Your task to perform on an android device: turn off picture-in-picture Image 0: 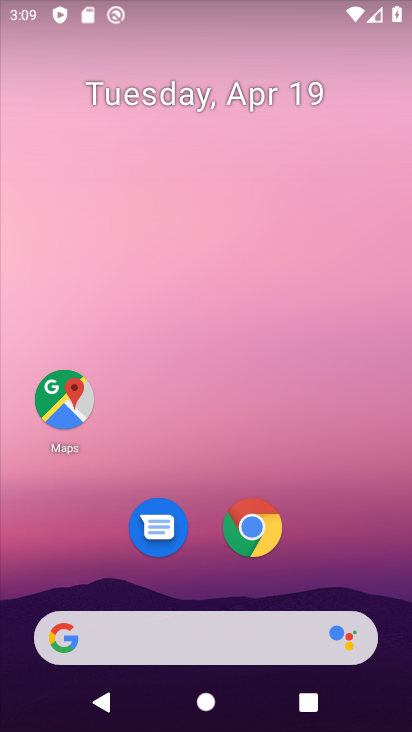
Step 0: click (268, 534)
Your task to perform on an android device: turn off picture-in-picture Image 1: 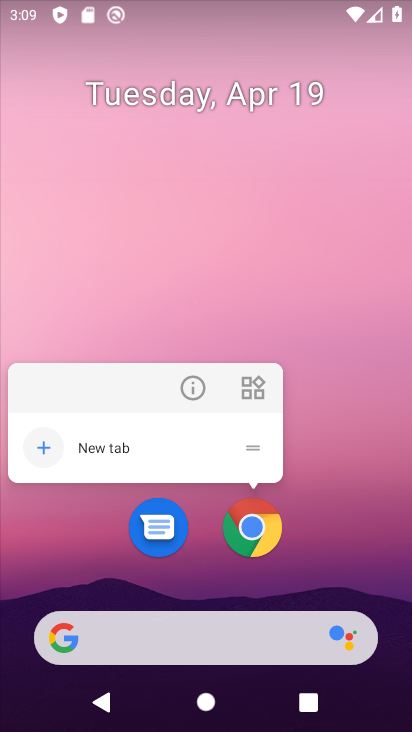
Step 1: click (194, 387)
Your task to perform on an android device: turn off picture-in-picture Image 2: 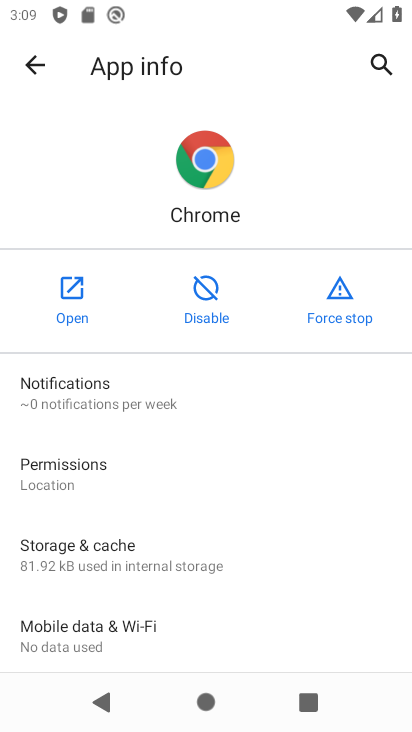
Step 2: drag from (228, 605) to (221, 114)
Your task to perform on an android device: turn off picture-in-picture Image 3: 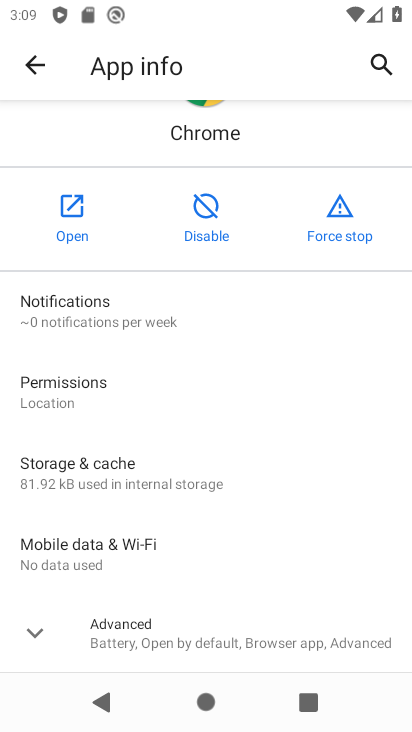
Step 3: click (165, 627)
Your task to perform on an android device: turn off picture-in-picture Image 4: 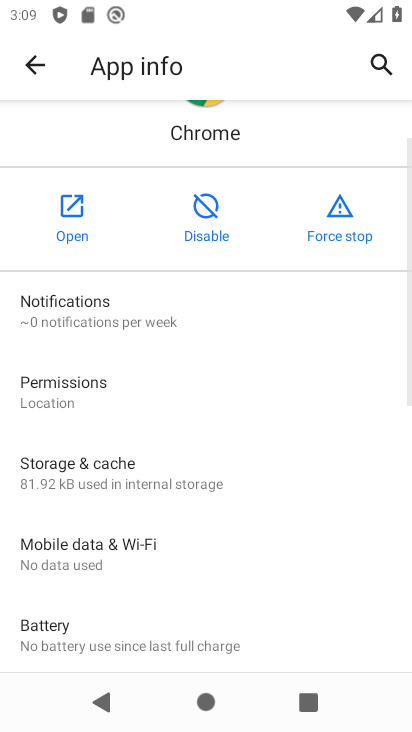
Step 4: drag from (256, 609) to (339, 247)
Your task to perform on an android device: turn off picture-in-picture Image 5: 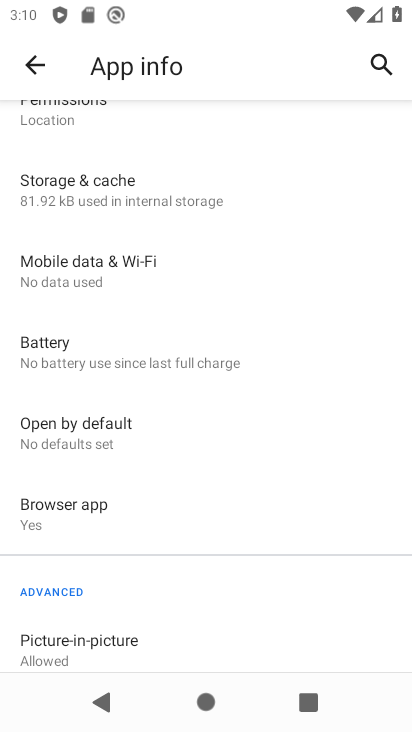
Step 5: drag from (229, 598) to (263, 156)
Your task to perform on an android device: turn off picture-in-picture Image 6: 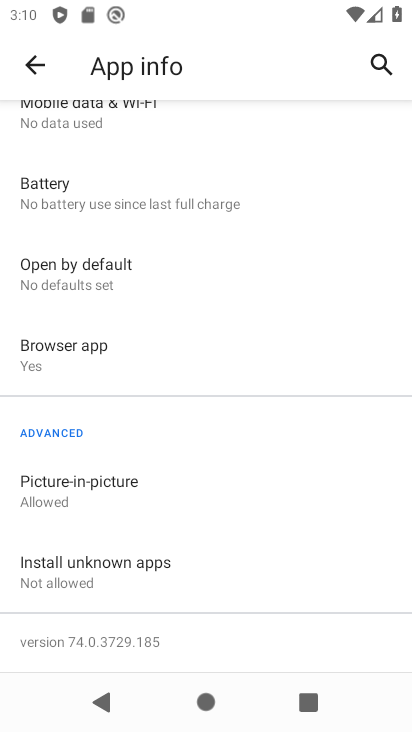
Step 6: click (103, 480)
Your task to perform on an android device: turn off picture-in-picture Image 7: 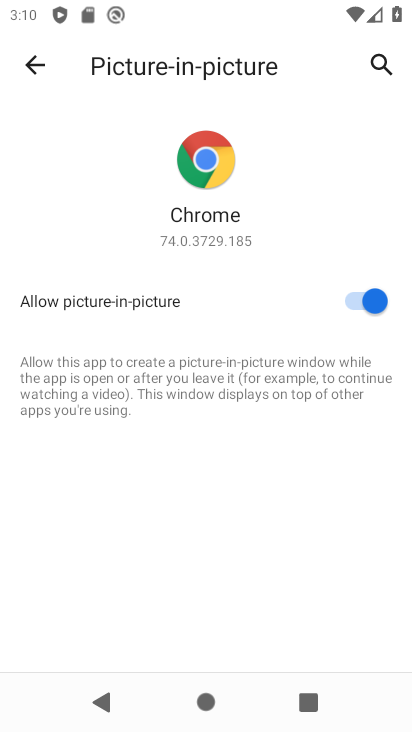
Step 7: click (358, 302)
Your task to perform on an android device: turn off picture-in-picture Image 8: 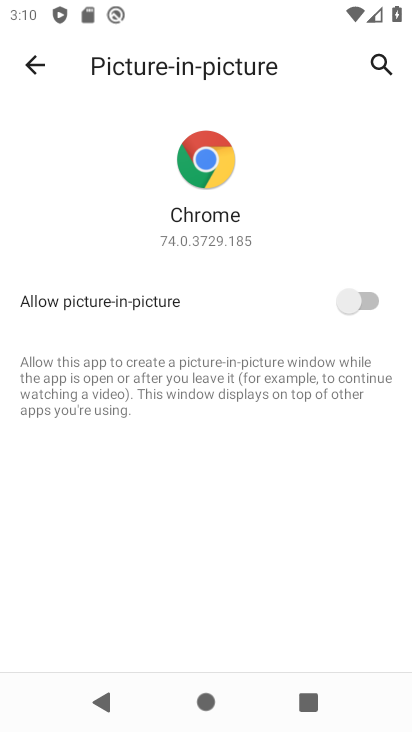
Step 8: task complete